Your task to perform on an android device: change the upload size in google photos Image 0: 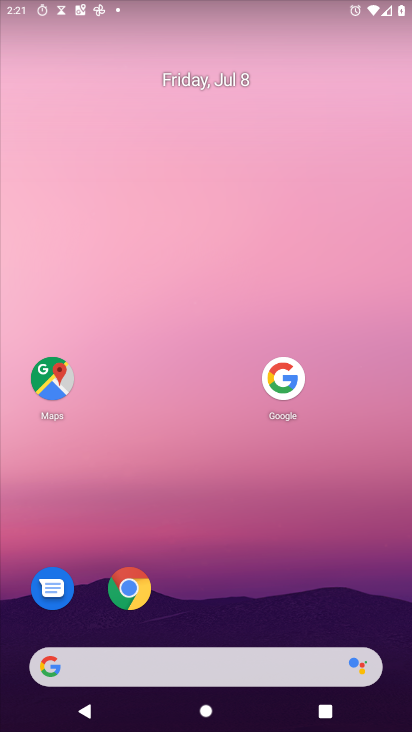
Step 0: click (168, 672)
Your task to perform on an android device: change the upload size in google photos Image 1: 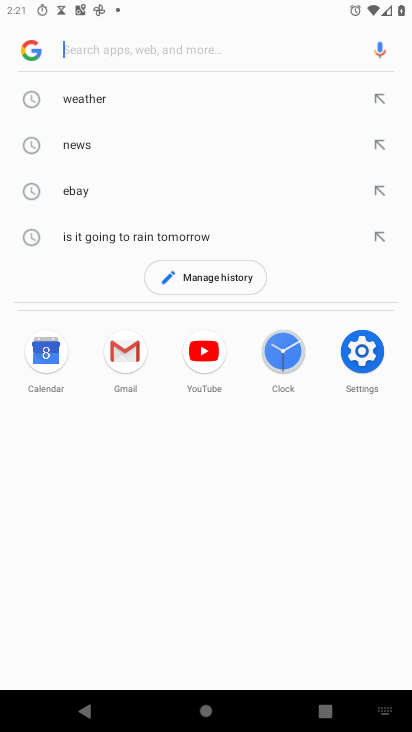
Step 1: click (83, 144)
Your task to perform on an android device: change the upload size in google photos Image 2: 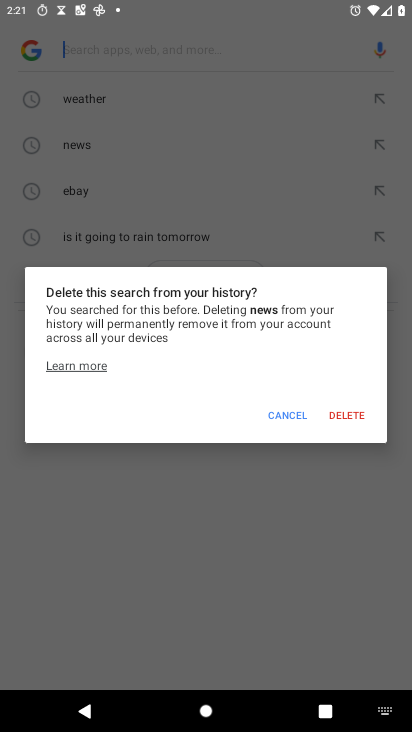
Step 2: click (241, 558)
Your task to perform on an android device: change the upload size in google photos Image 3: 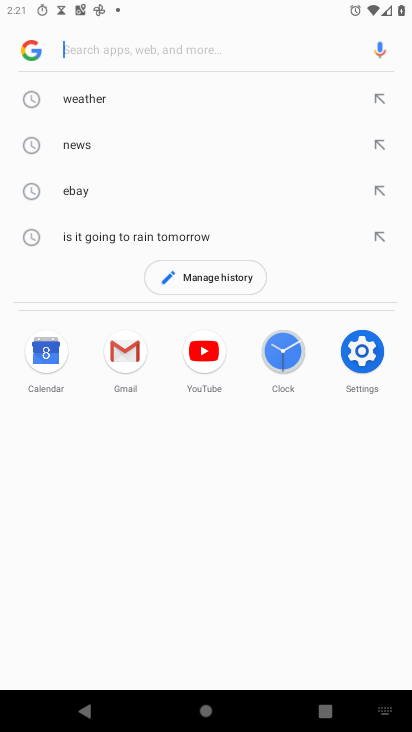
Step 3: click (283, 412)
Your task to perform on an android device: change the upload size in google photos Image 4: 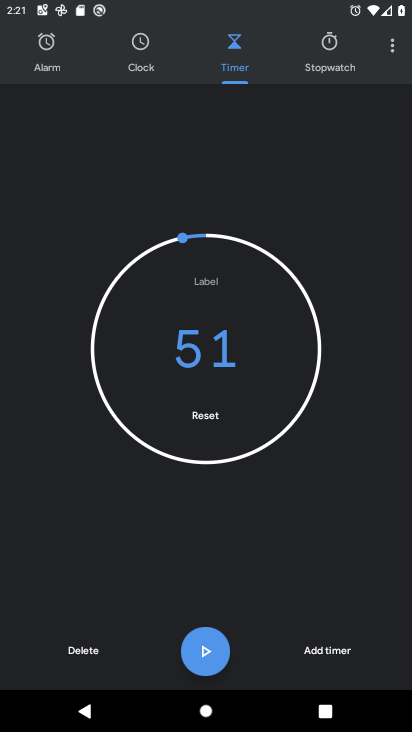
Step 4: press home button
Your task to perform on an android device: change the upload size in google photos Image 5: 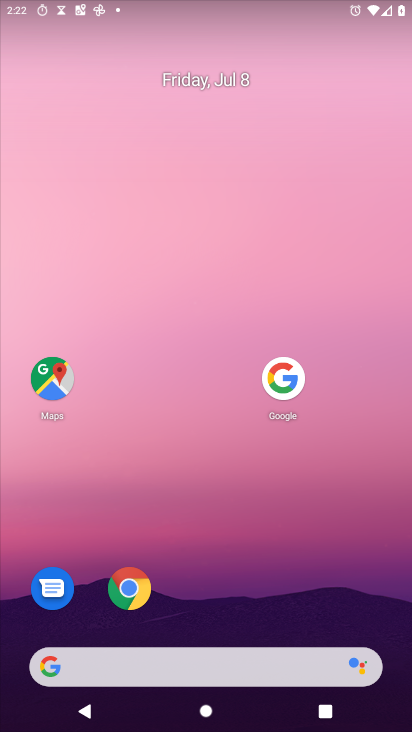
Step 5: drag from (136, 662) to (232, 157)
Your task to perform on an android device: change the upload size in google photos Image 6: 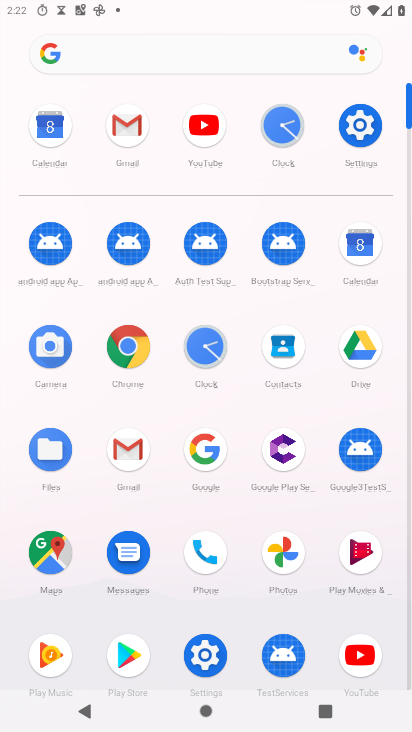
Step 6: click (289, 552)
Your task to perform on an android device: change the upload size in google photos Image 7: 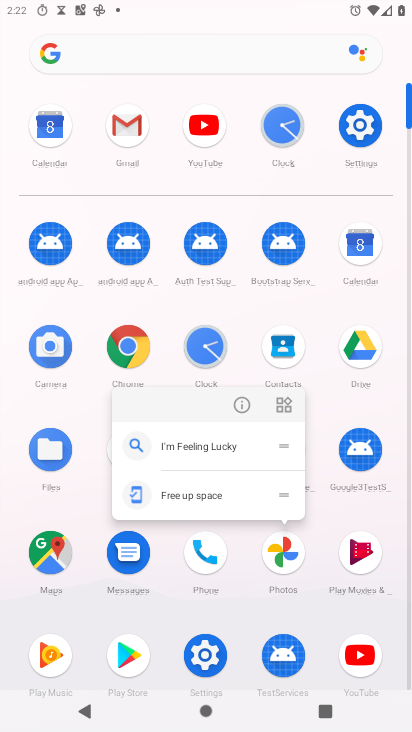
Step 7: click (290, 554)
Your task to perform on an android device: change the upload size in google photos Image 8: 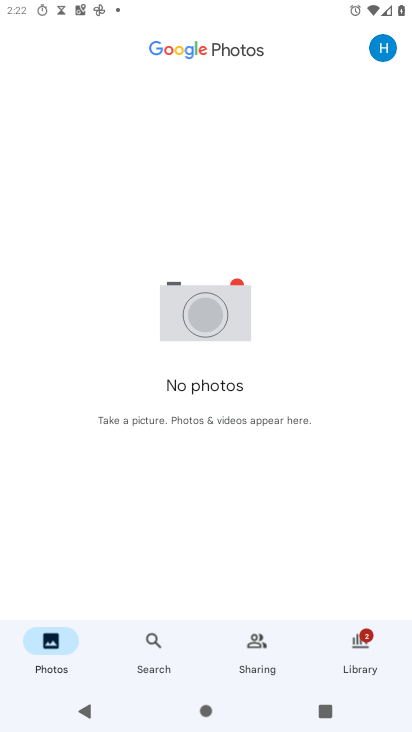
Step 8: click (380, 54)
Your task to perform on an android device: change the upload size in google photos Image 9: 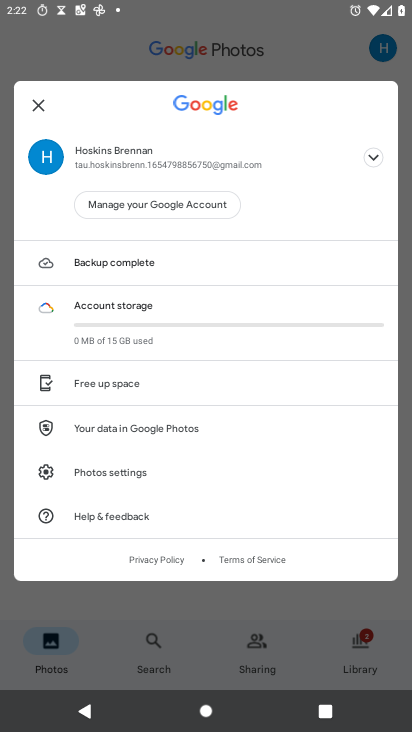
Step 9: click (113, 470)
Your task to perform on an android device: change the upload size in google photos Image 10: 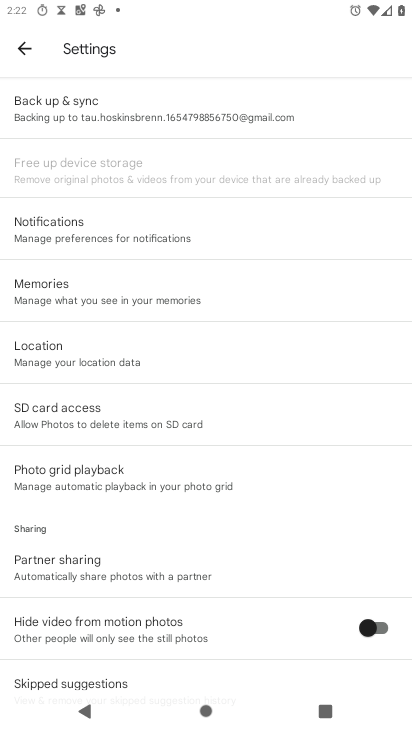
Step 10: click (179, 132)
Your task to perform on an android device: change the upload size in google photos Image 11: 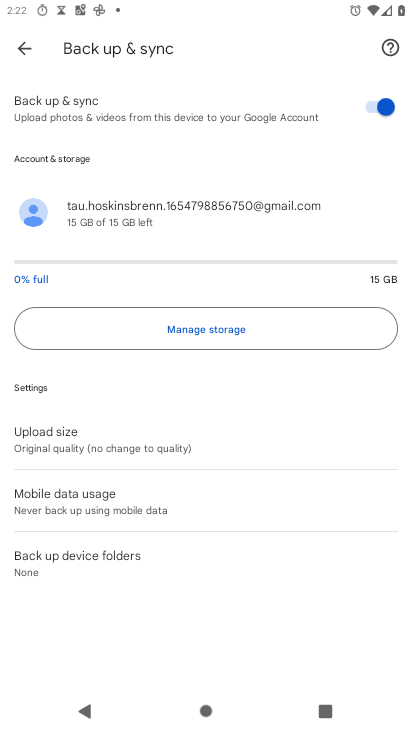
Step 11: click (111, 451)
Your task to perform on an android device: change the upload size in google photos Image 12: 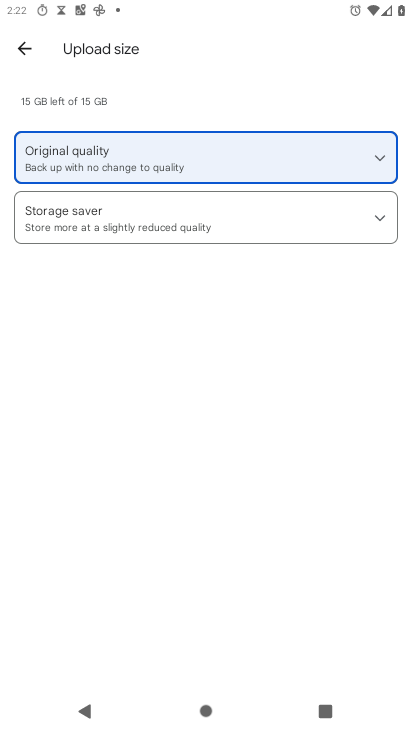
Step 12: click (378, 212)
Your task to perform on an android device: change the upload size in google photos Image 13: 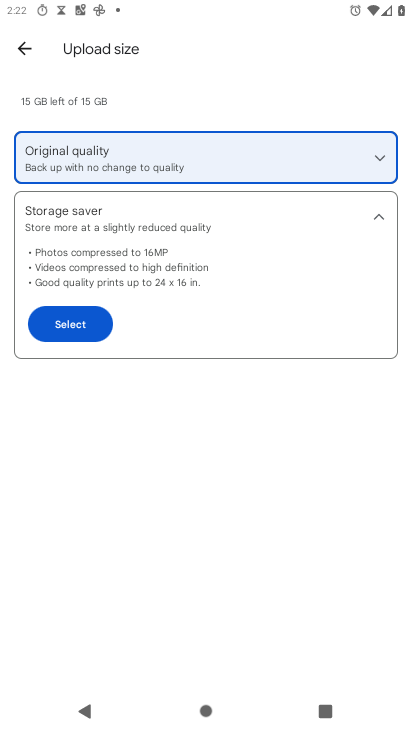
Step 13: click (66, 314)
Your task to perform on an android device: change the upload size in google photos Image 14: 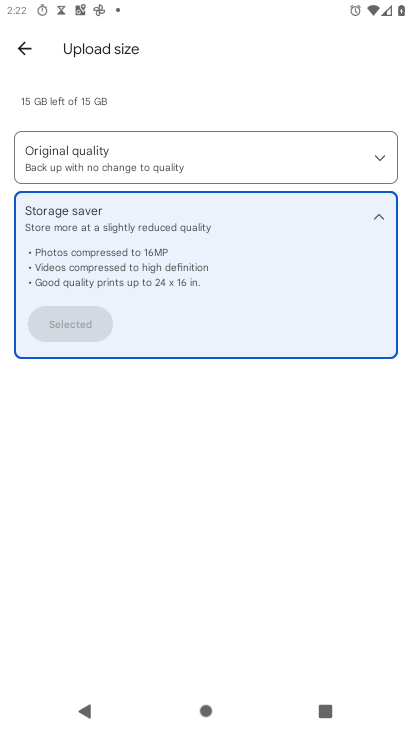
Step 14: task complete